Your task to perform on an android device: snooze an email in the gmail app Image 0: 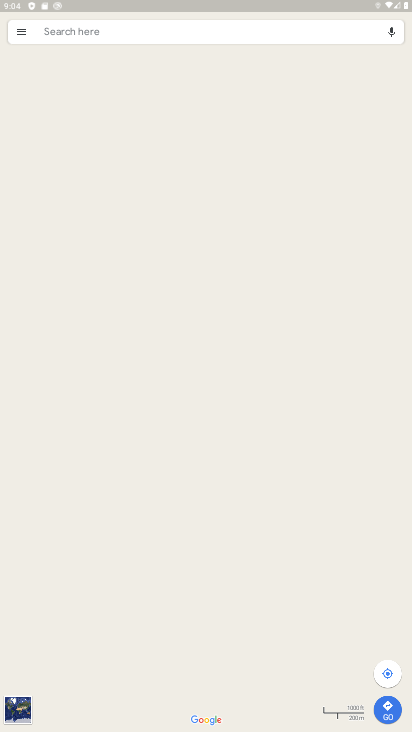
Step 0: press home button
Your task to perform on an android device: snooze an email in the gmail app Image 1: 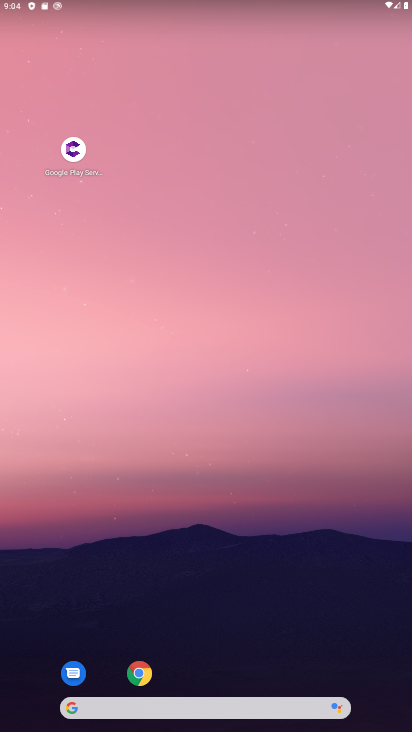
Step 1: drag from (320, 653) to (348, 86)
Your task to perform on an android device: snooze an email in the gmail app Image 2: 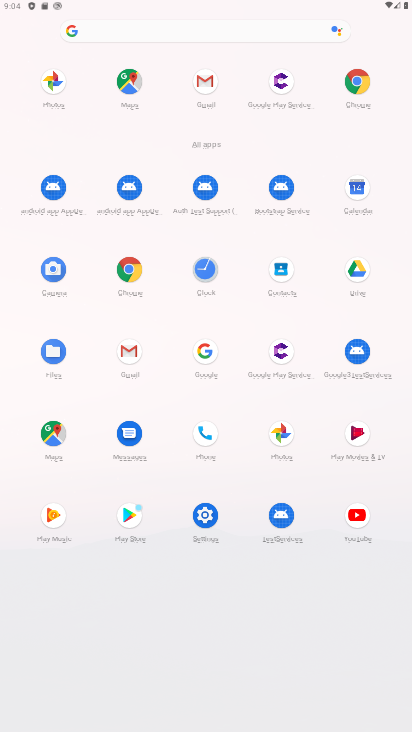
Step 2: click (208, 85)
Your task to perform on an android device: snooze an email in the gmail app Image 3: 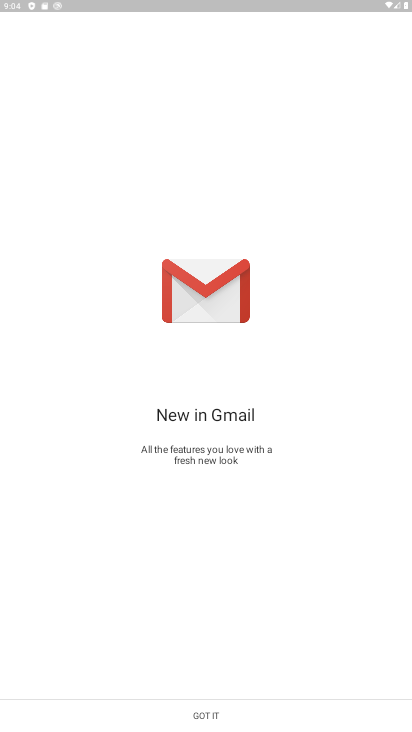
Step 3: click (217, 721)
Your task to perform on an android device: snooze an email in the gmail app Image 4: 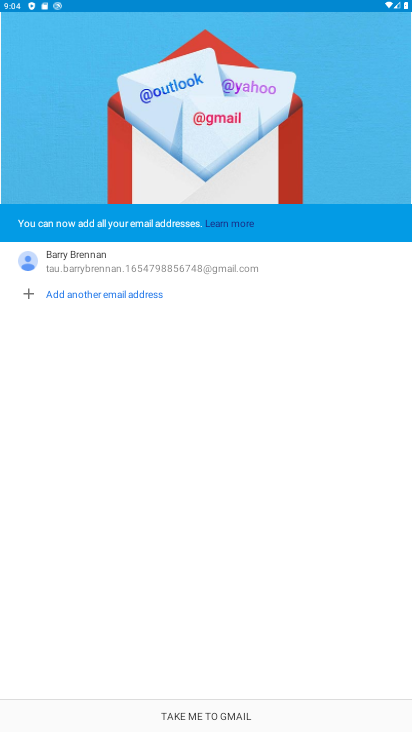
Step 4: click (217, 721)
Your task to perform on an android device: snooze an email in the gmail app Image 5: 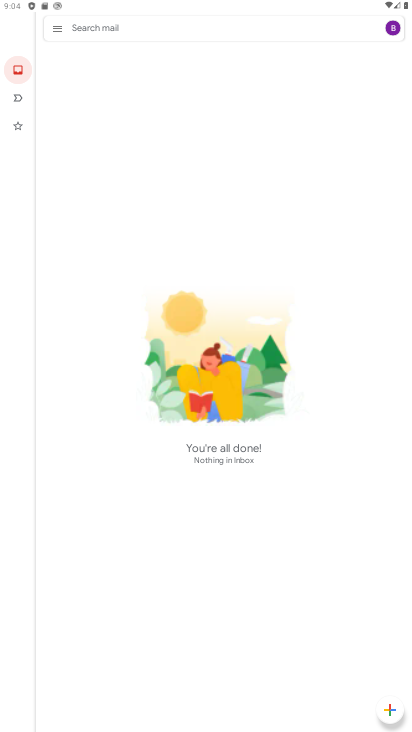
Step 5: click (54, 28)
Your task to perform on an android device: snooze an email in the gmail app Image 6: 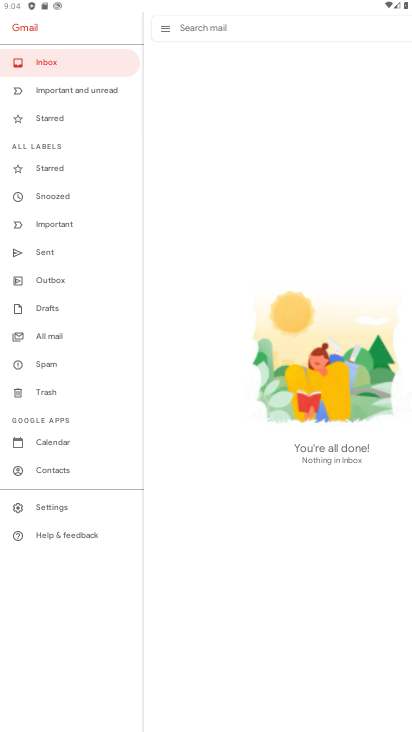
Step 6: task complete